Your task to perform on an android device: open the mobile data screen to see how much data has been used Image 0: 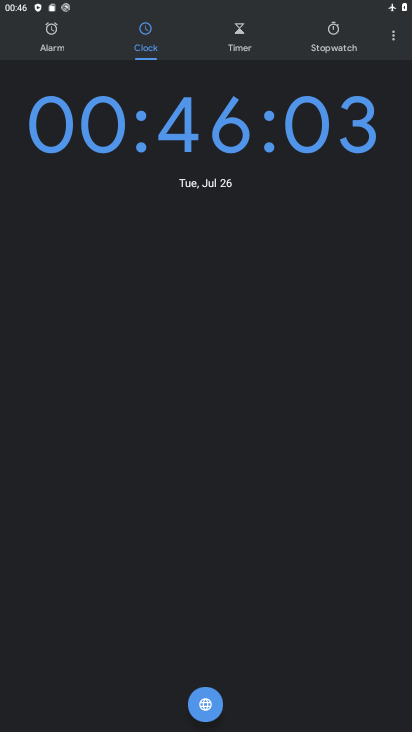
Step 0: press home button
Your task to perform on an android device: open the mobile data screen to see how much data has been used Image 1: 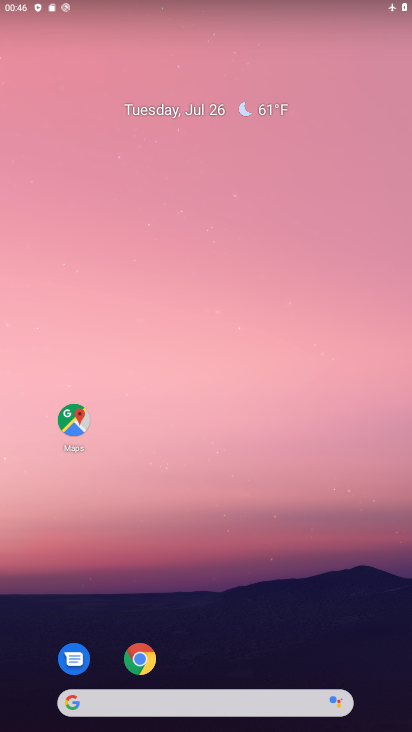
Step 1: drag from (280, 637) to (284, 37)
Your task to perform on an android device: open the mobile data screen to see how much data has been used Image 2: 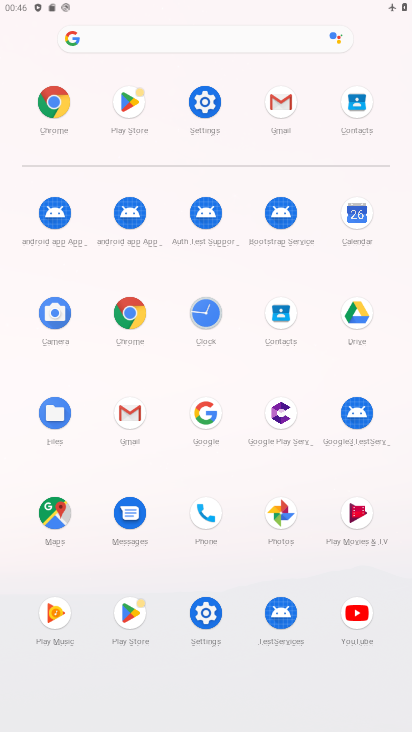
Step 2: click (213, 97)
Your task to perform on an android device: open the mobile data screen to see how much data has been used Image 3: 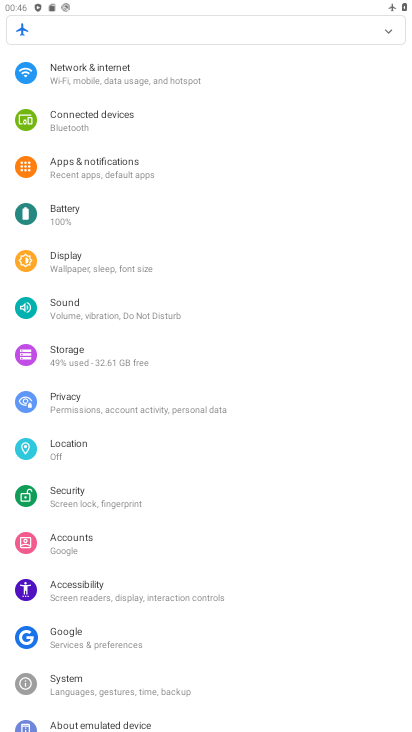
Step 3: click (104, 78)
Your task to perform on an android device: open the mobile data screen to see how much data has been used Image 4: 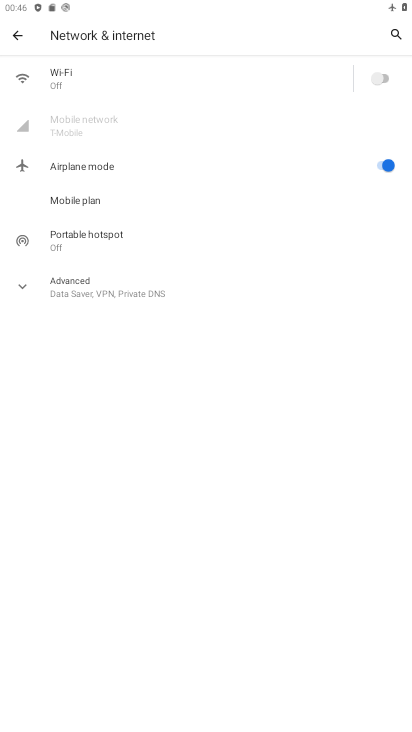
Step 4: click (123, 133)
Your task to perform on an android device: open the mobile data screen to see how much data has been used Image 5: 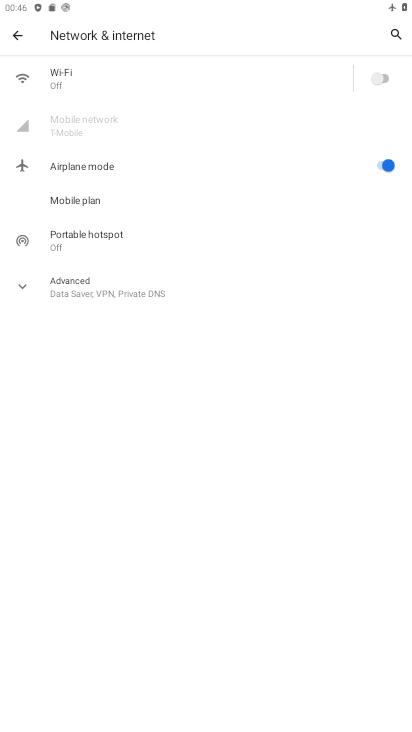
Step 5: task complete